Your task to perform on an android device: change alarm snooze length Image 0: 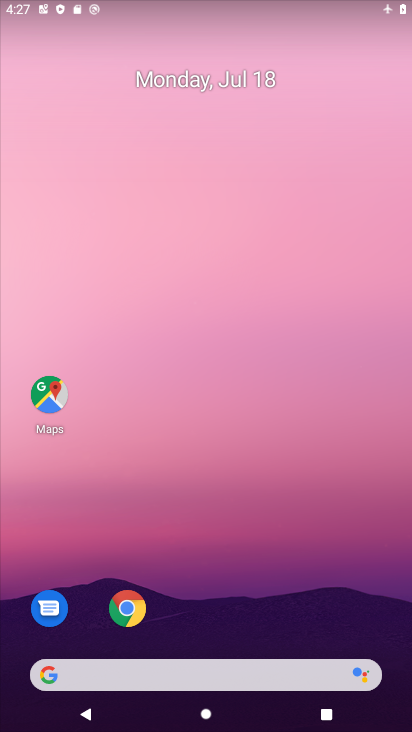
Step 0: drag from (291, 592) to (332, 81)
Your task to perform on an android device: change alarm snooze length Image 1: 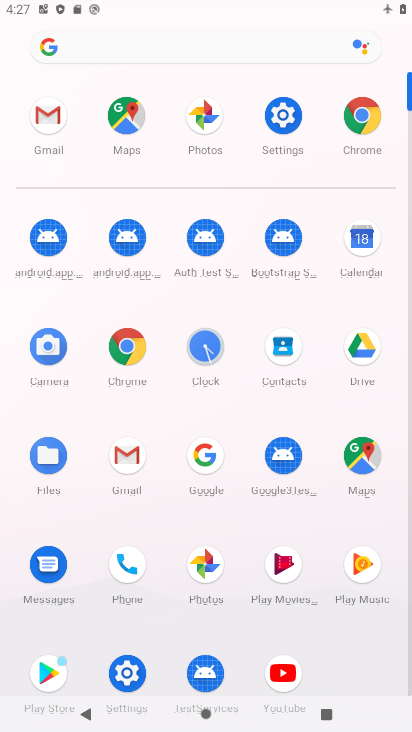
Step 1: click (196, 345)
Your task to perform on an android device: change alarm snooze length Image 2: 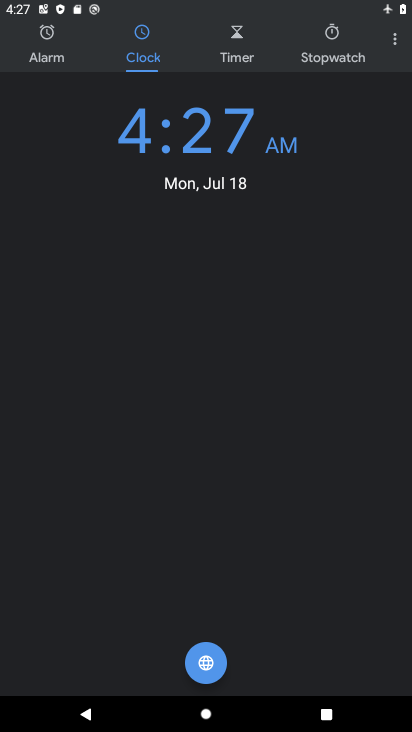
Step 2: click (392, 47)
Your task to perform on an android device: change alarm snooze length Image 3: 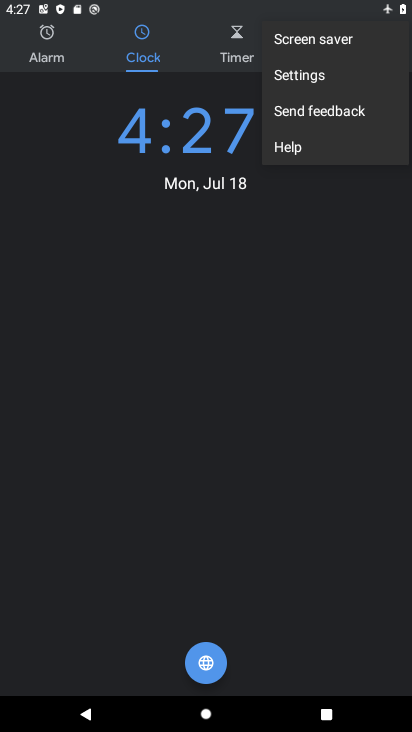
Step 3: click (349, 75)
Your task to perform on an android device: change alarm snooze length Image 4: 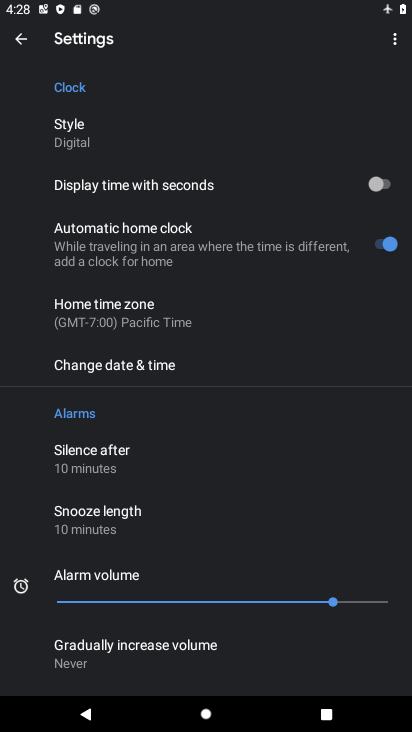
Step 4: click (97, 519)
Your task to perform on an android device: change alarm snooze length Image 5: 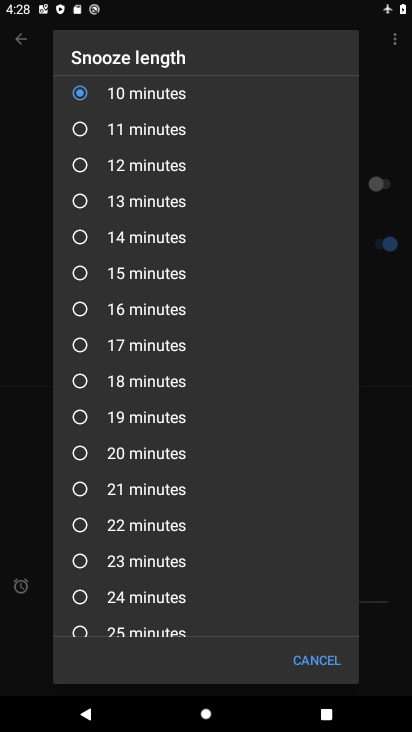
Step 5: click (179, 134)
Your task to perform on an android device: change alarm snooze length Image 6: 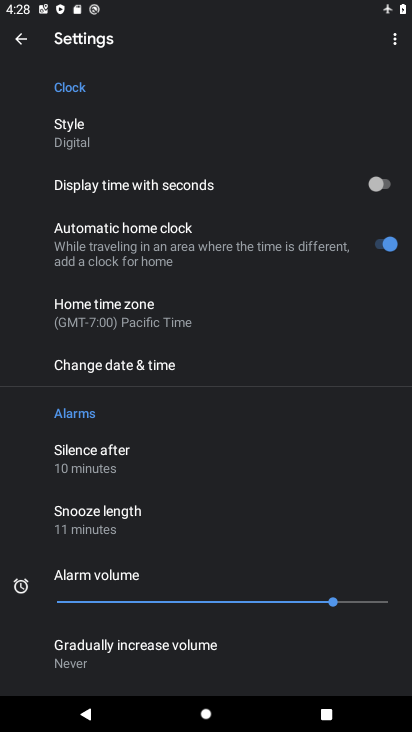
Step 6: task complete